Your task to perform on an android device: Go to display settings Image 0: 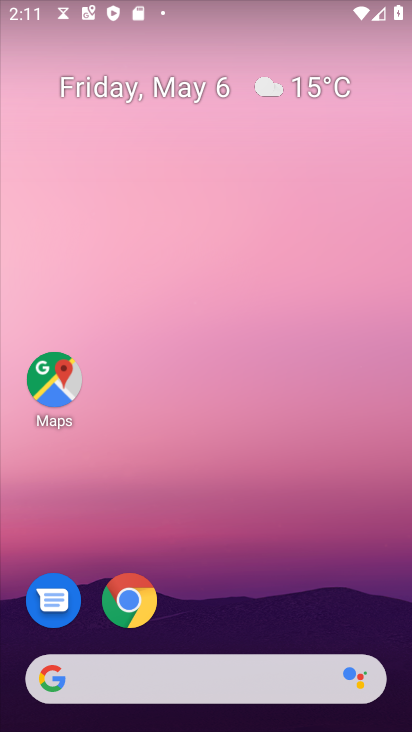
Step 0: drag from (234, 577) to (194, 29)
Your task to perform on an android device: Go to display settings Image 1: 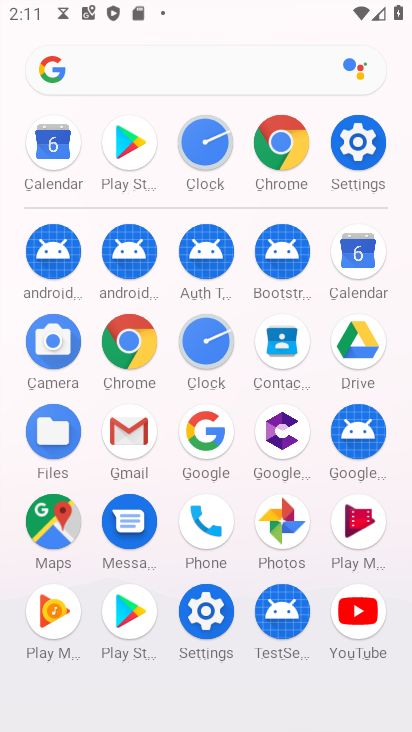
Step 1: drag from (12, 556) to (1, 471)
Your task to perform on an android device: Go to display settings Image 2: 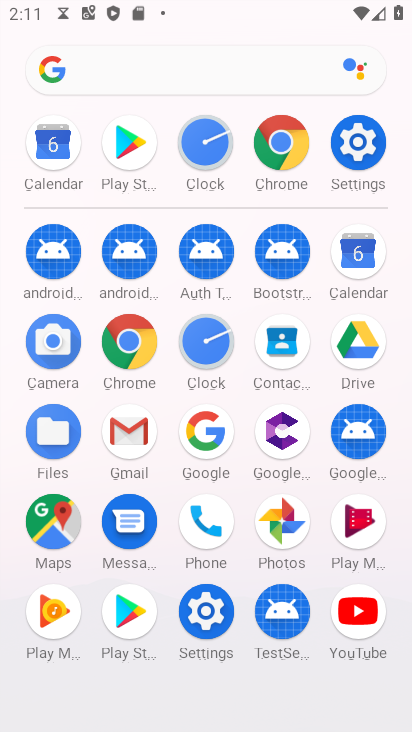
Step 2: click (203, 611)
Your task to perform on an android device: Go to display settings Image 3: 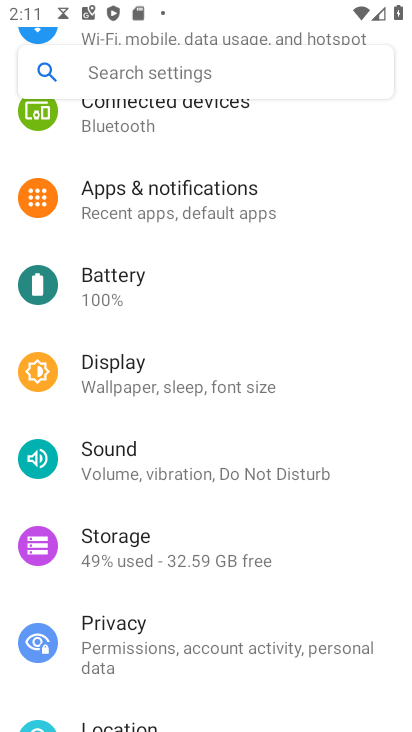
Step 3: click (149, 390)
Your task to perform on an android device: Go to display settings Image 4: 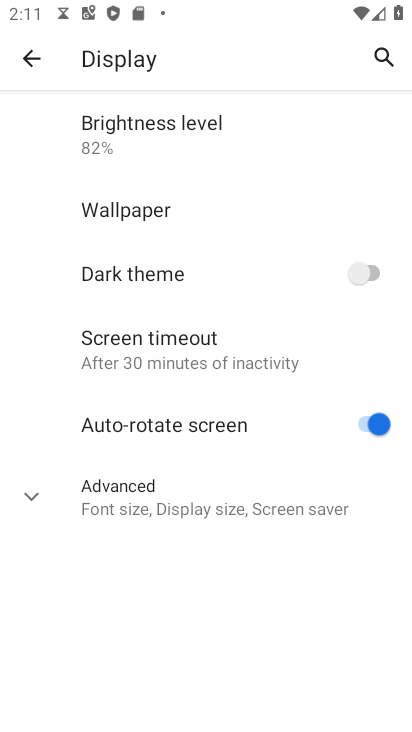
Step 4: click (28, 498)
Your task to perform on an android device: Go to display settings Image 5: 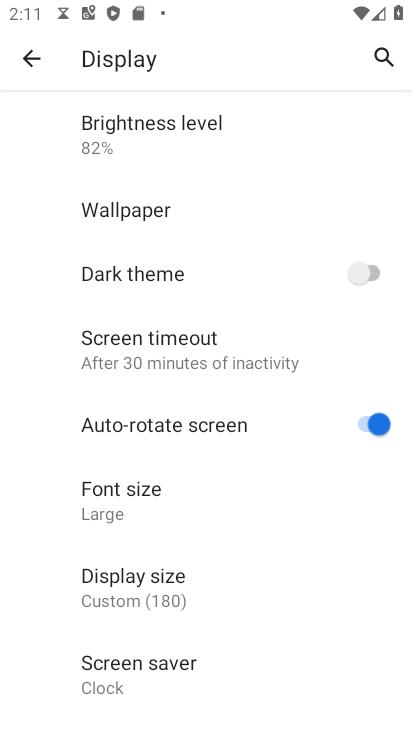
Step 5: task complete